Your task to perform on an android device: turn on showing notifications on the lock screen Image 0: 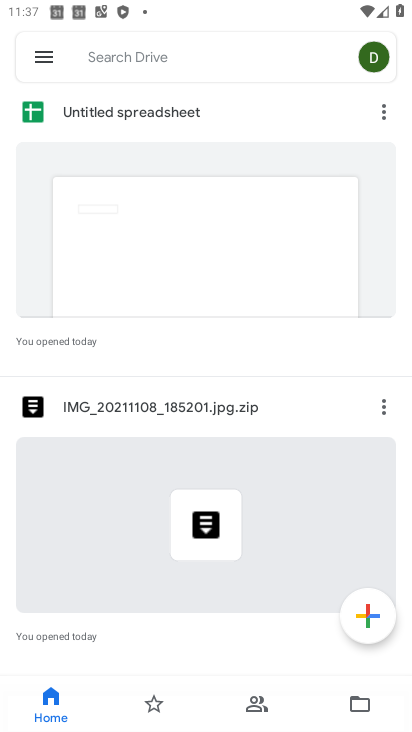
Step 0: task complete